Your task to perform on an android device: Show me recent news Image 0: 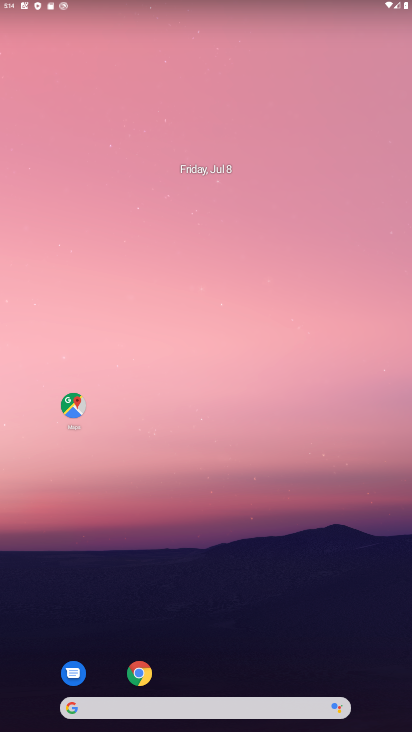
Step 0: drag from (181, 600) to (162, 118)
Your task to perform on an android device: Show me recent news Image 1: 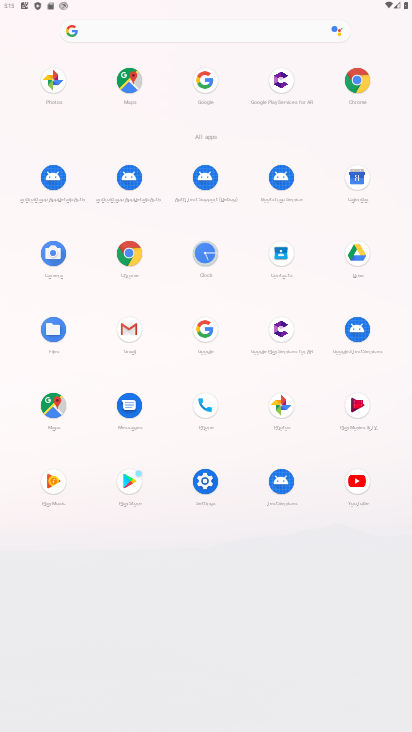
Step 1: click (204, 91)
Your task to perform on an android device: Show me recent news Image 2: 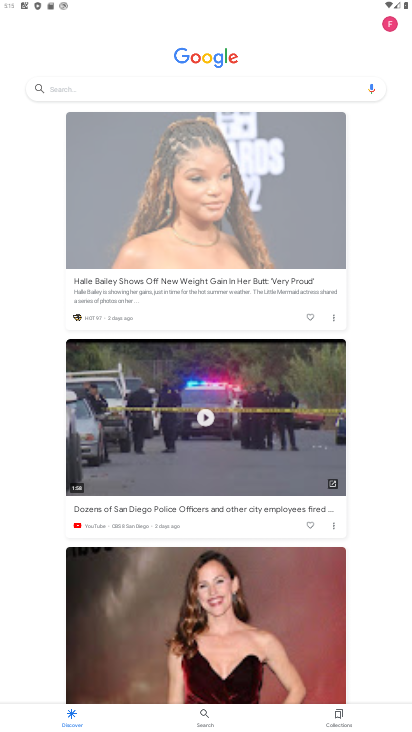
Step 2: click (197, 78)
Your task to perform on an android device: Show me recent news Image 3: 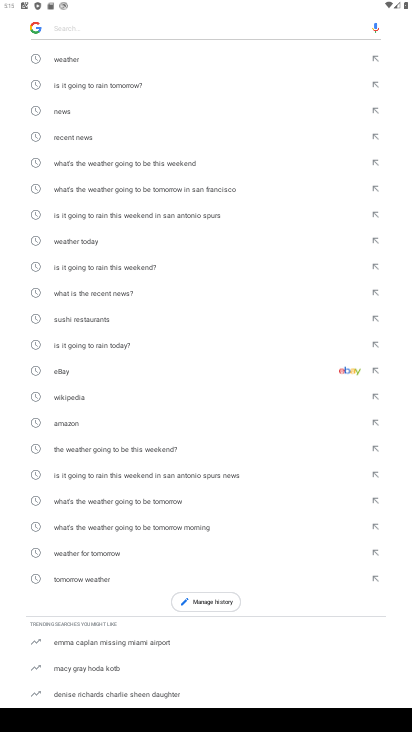
Step 3: click (63, 134)
Your task to perform on an android device: Show me recent news Image 4: 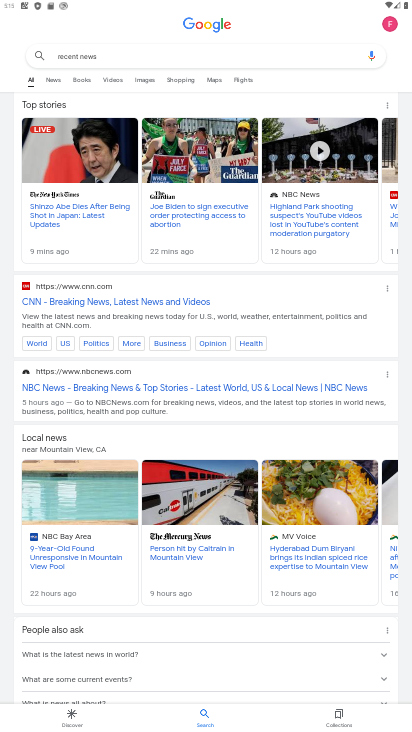
Step 4: task complete